Your task to perform on an android device: Go to accessibility settings Image 0: 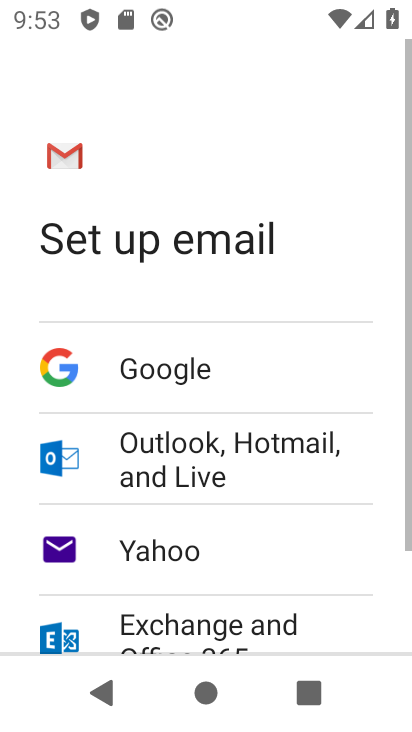
Step 0: press home button
Your task to perform on an android device: Go to accessibility settings Image 1: 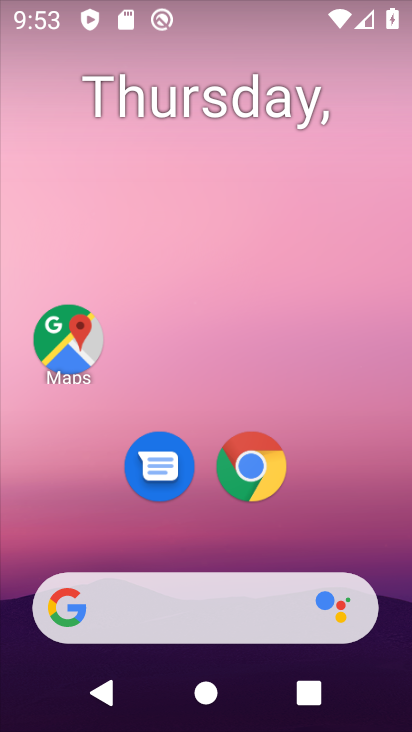
Step 1: drag from (237, 561) to (280, 100)
Your task to perform on an android device: Go to accessibility settings Image 2: 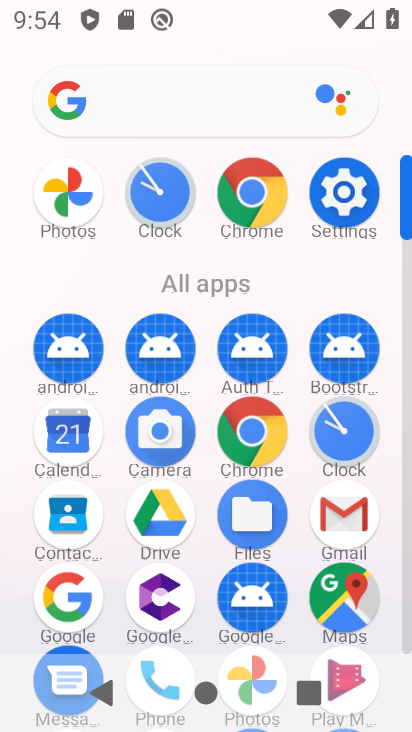
Step 2: click (363, 179)
Your task to perform on an android device: Go to accessibility settings Image 3: 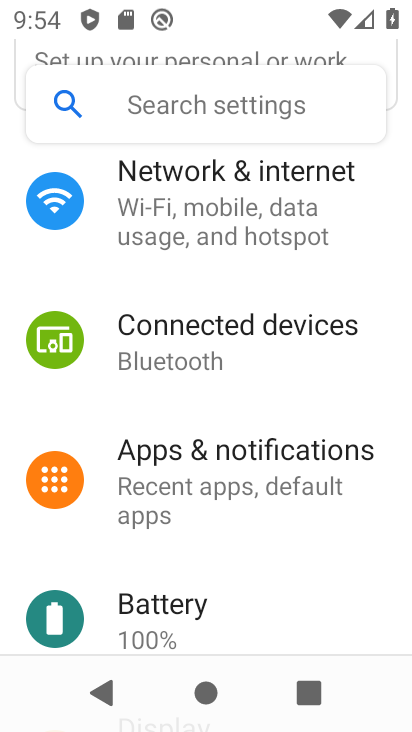
Step 3: drag from (210, 564) to (201, 171)
Your task to perform on an android device: Go to accessibility settings Image 4: 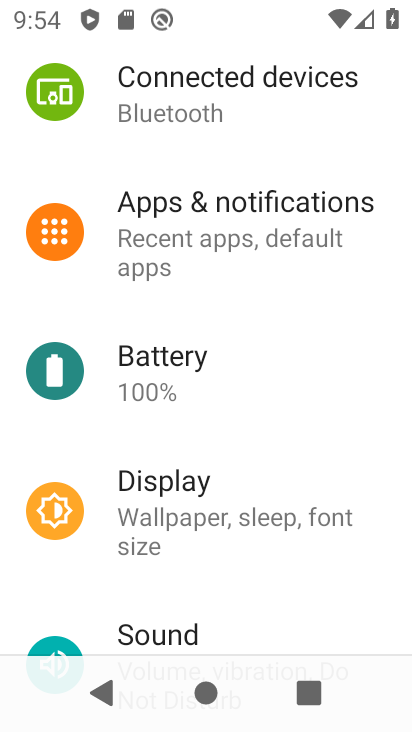
Step 4: drag from (215, 527) to (292, 137)
Your task to perform on an android device: Go to accessibility settings Image 5: 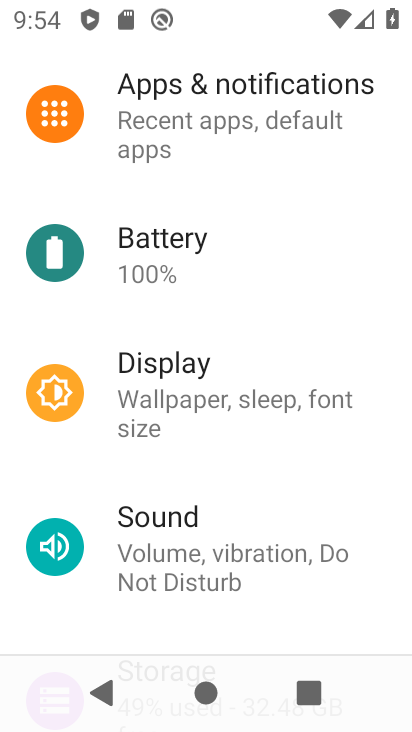
Step 5: drag from (241, 559) to (292, 189)
Your task to perform on an android device: Go to accessibility settings Image 6: 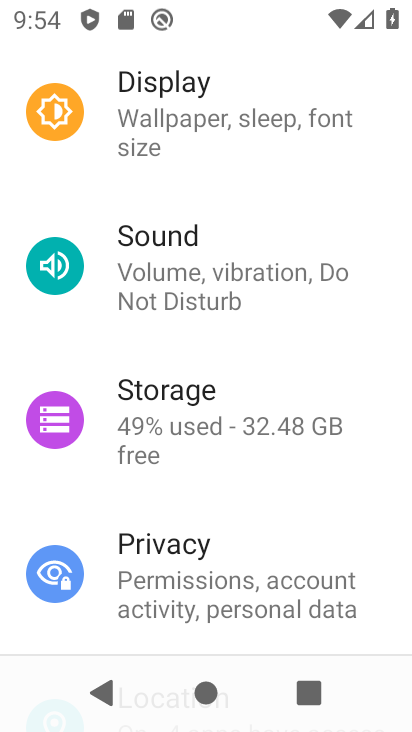
Step 6: drag from (258, 508) to (299, 137)
Your task to perform on an android device: Go to accessibility settings Image 7: 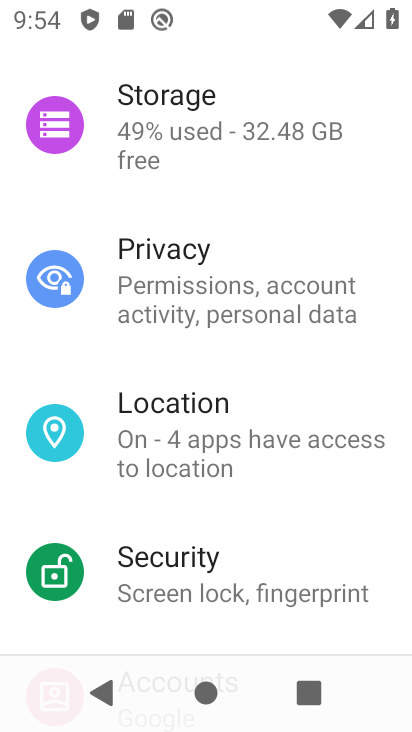
Step 7: drag from (267, 545) to (281, 139)
Your task to perform on an android device: Go to accessibility settings Image 8: 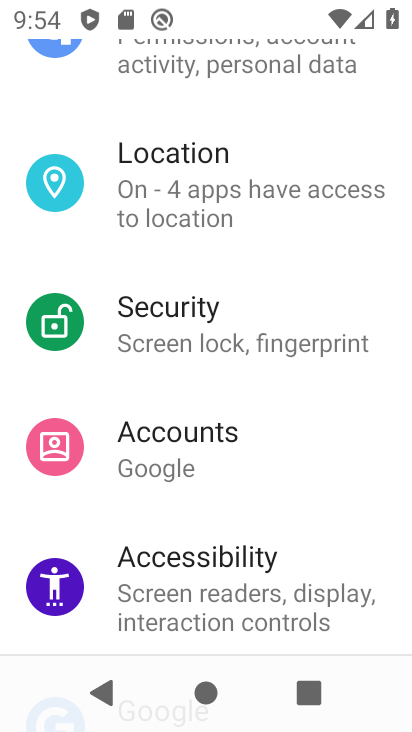
Step 8: click (257, 587)
Your task to perform on an android device: Go to accessibility settings Image 9: 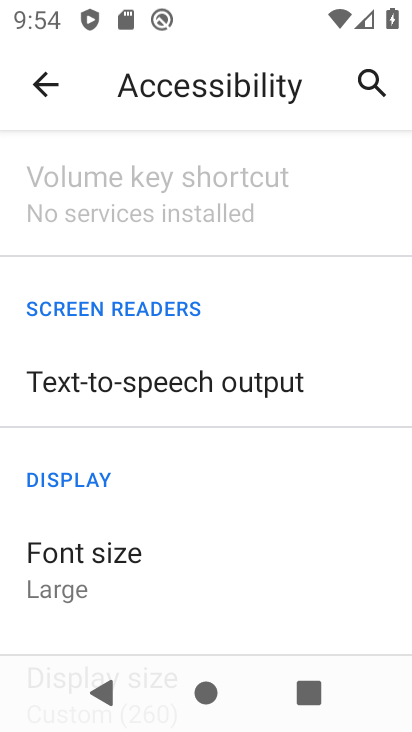
Step 9: task complete